Your task to perform on an android device: Open Chrome and go to the settings page Image 0: 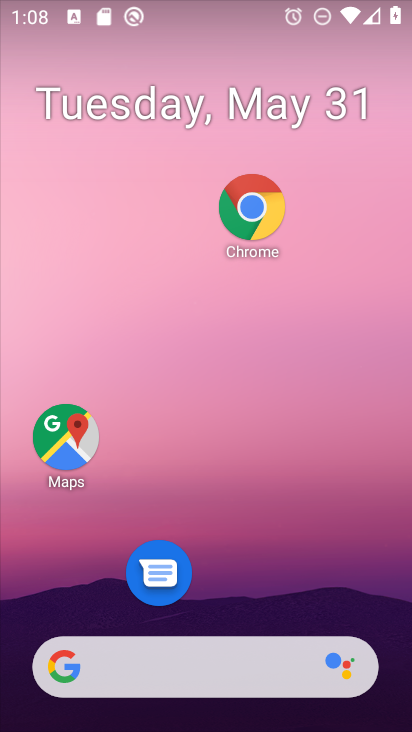
Step 0: drag from (229, 550) to (230, 160)
Your task to perform on an android device: Open Chrome and go to the settings page Image 1: 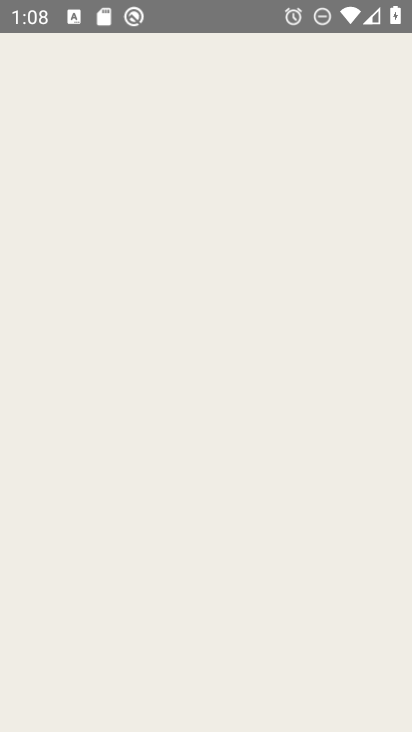
Step 1: press home button
Your task to perform on an android device: Open Chrome and go to the settings page Image 2: 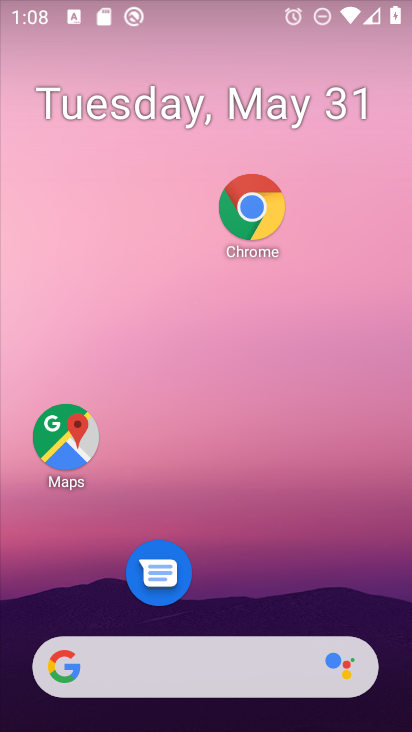
Step 2: drag from (246, 633) to (270, 222)
Your task to perform on an android device: Open Chrome and go to the settings page Image 3: 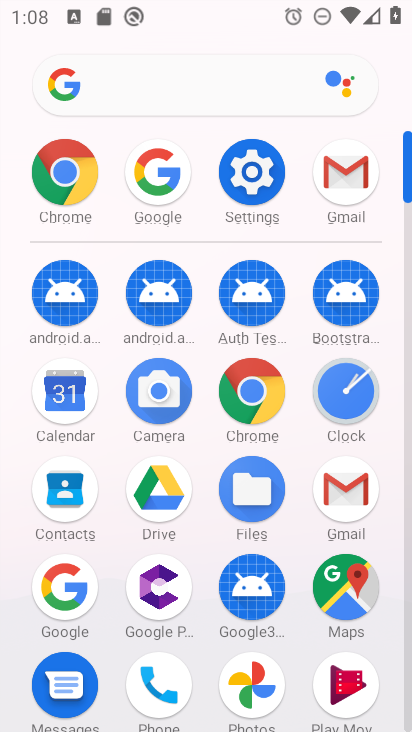
Step 3: drag from (242, 521) to (253, 280)
Your task to perform on an android device: Open Chrome and go to the settings page Image 4: 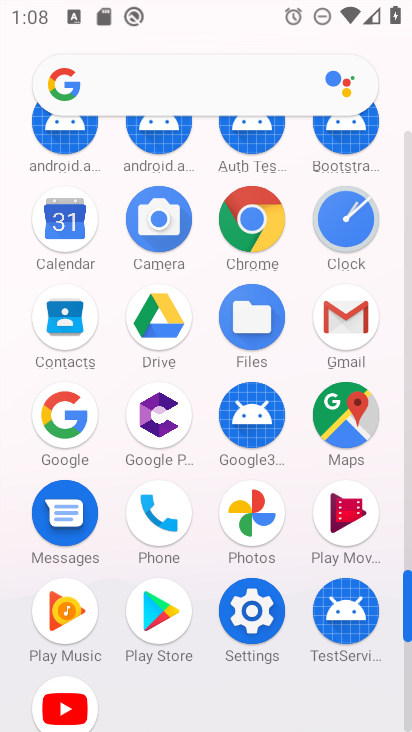
Step 4: click (266, 227)
Your task to perform on an android device: Open Chrome and go to the settings page Image 5: 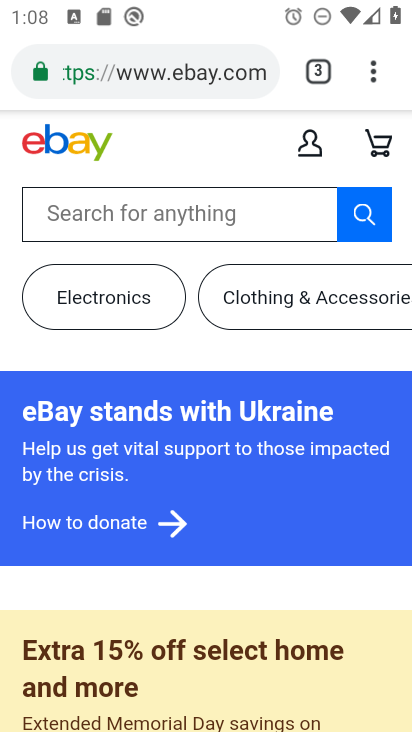
Step 5: click (375, 83)
Your task to perform on an android device: Open Chrome and go to the settings page Image 6: 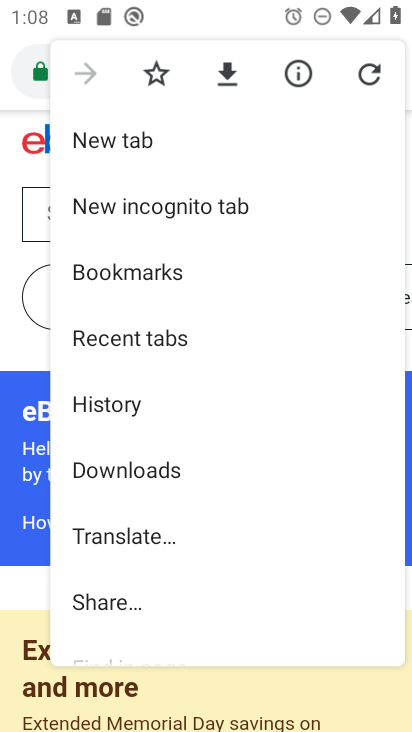
Step 6: drag from (175, 502) to (243, 231)
Your task to perform on an android device: Open Chrome and go to the settings page Image 7: 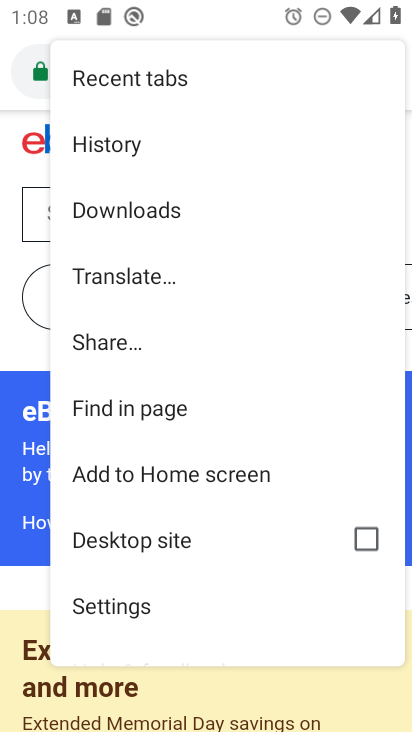
Step 7: click (139, 604)
Your task to perform on an android device: Open Chrome and go to the settings page Image 8: 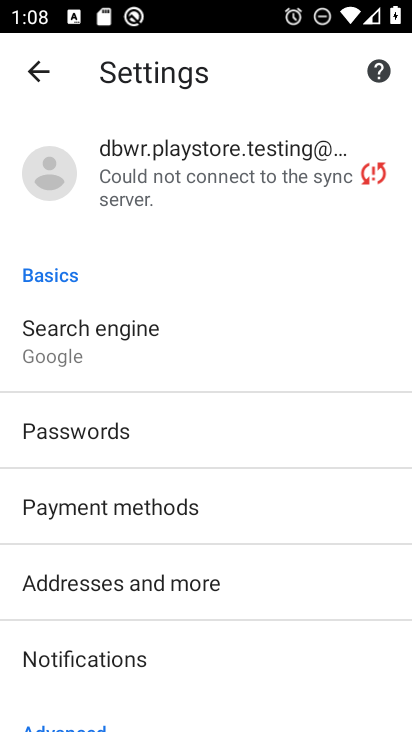
Step 8: task complete